Your task to perform on an android device: Go to location settings Image 0: 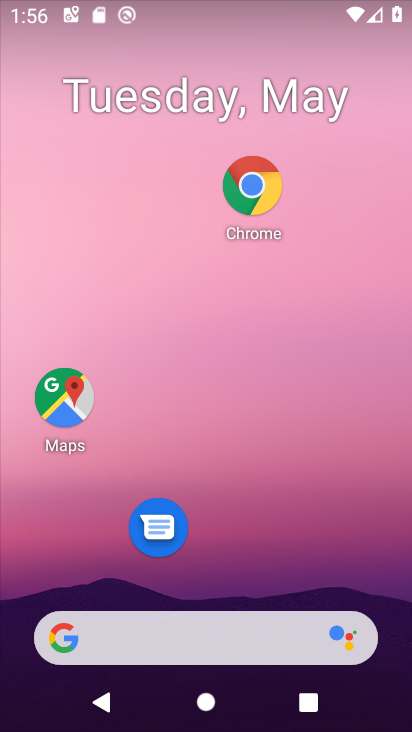
Step 0: drag from (243, 572) to (174, 148)
Your task to perform on an android device: Go to location settings Image 1: 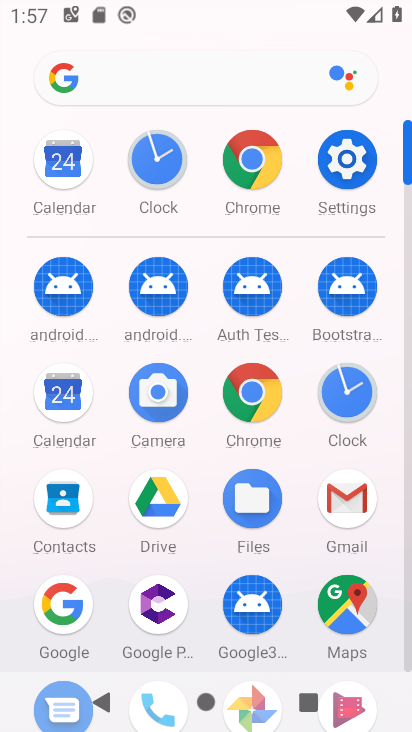
Step 1: click (348, 160)
Your task to perform on an android device: Go to location settings Image 2: 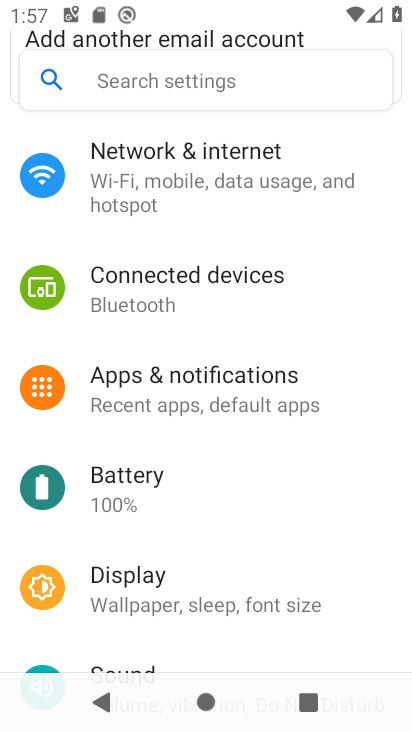
Step 2: drag from (218, 500) to (152, 134)
Your task to perform on an android device: Go to location settings Image 3: 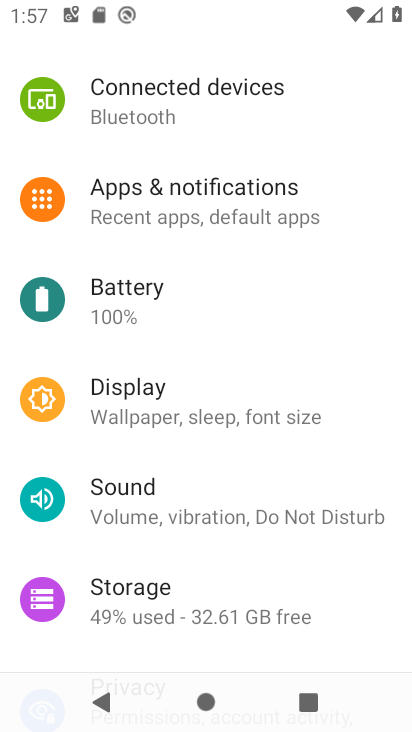
Step 3: drag from (197, 479) to (198, 280)
Your task to perform on an android device: Go to location settings Image 4: 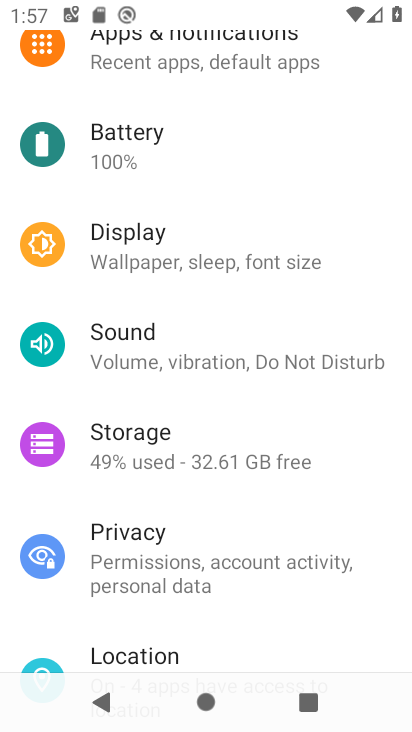
Step 4: drag from (197, 504) to (166, 262)
Your task to perform on an android device: Go to location settings Image 5: 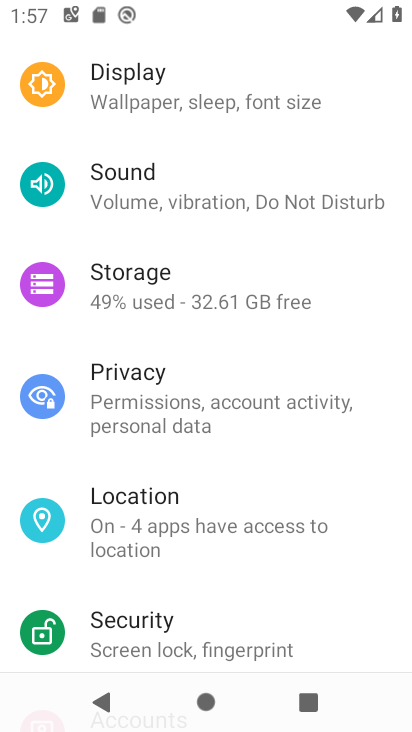
Step 5: click (128, 497)
Your task to perform on an android device: Go to location settings Image 6: 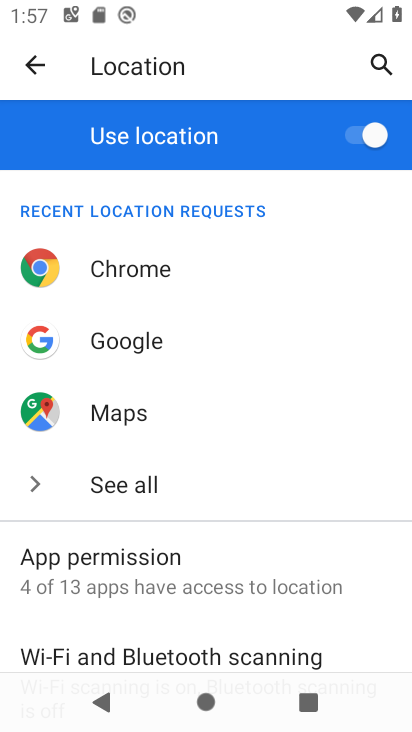
Step 6: task complete